Your task to perform on an android device: set the stopwatch Image 0: 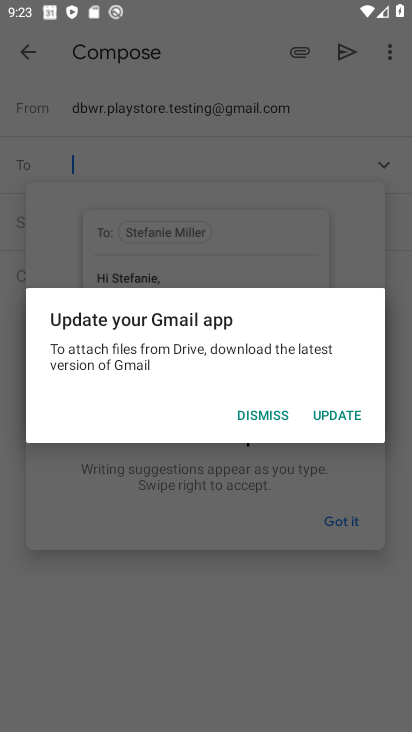
Step 0: press home button
Your task to perform on an android device: set the stopwatch Image 1: 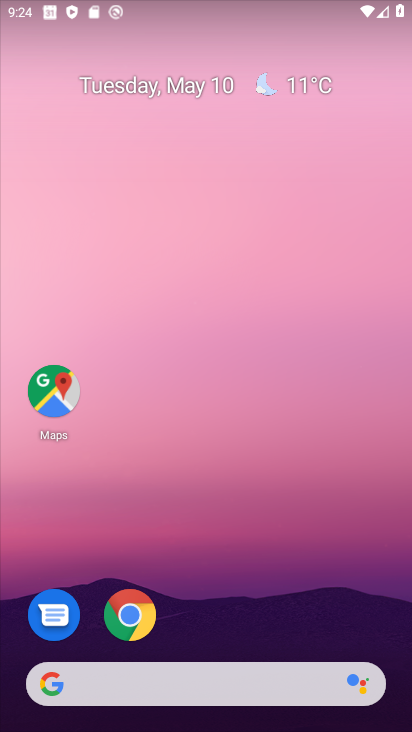
Step 1: drag from (206, 635) to (274, 93)
Your task to perform on an android device: set the stopwatch Image 2: 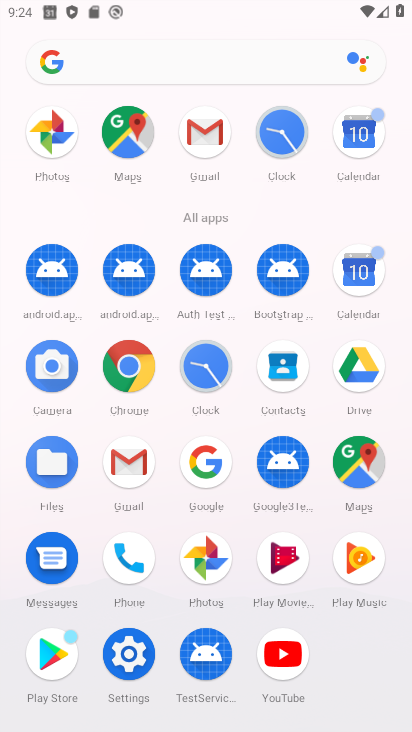
Step 2: click (277, 125)
Your task to perform on an android device: set the stopwatch Image 3: 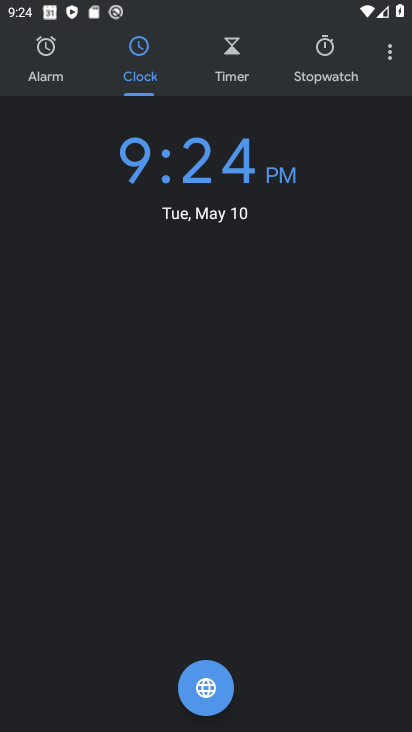
Step 3: click (325, 51)
Your task to perform on an android device: set the stopwatch Image 4: 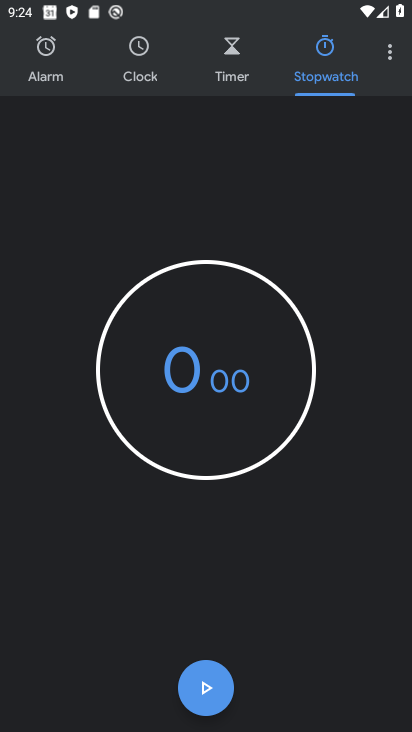
Step 4: click (201, 681)
Your task to perform on an android device: set the stopwatch Image 5: 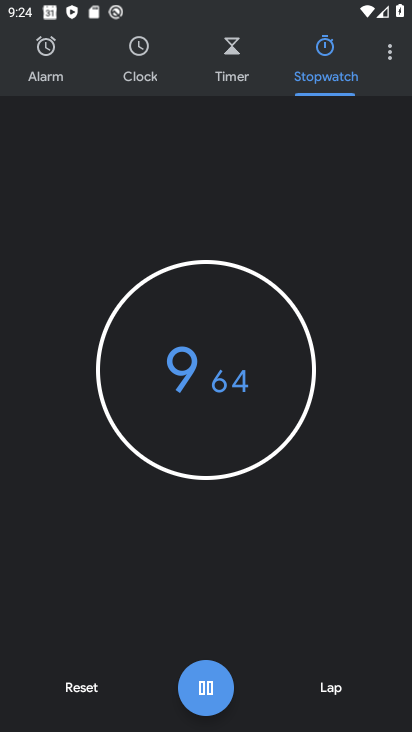
Step 5: task complete